Your task to perform on an android device: see sites visited before in the chrome app Image 0: 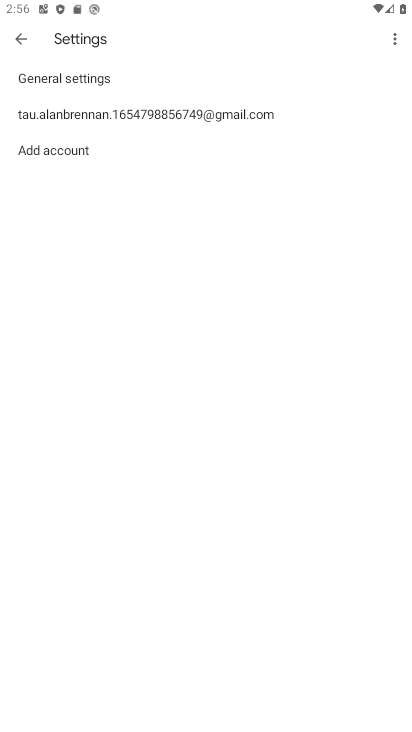
Step 0: press home button
Your task to perform on an android device: see sites visited before in the chrome app Image 1: 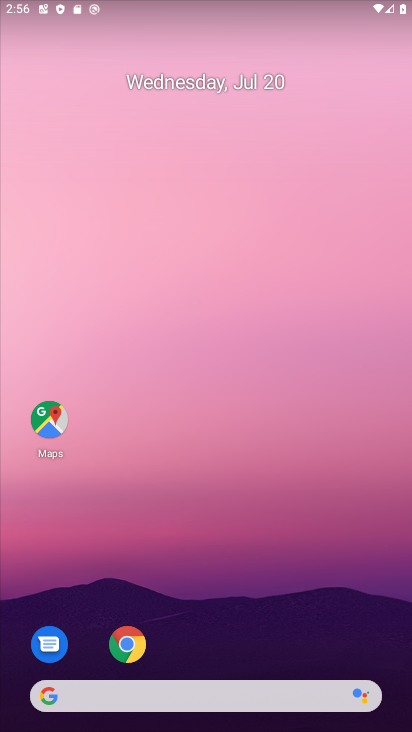
Step 1: task complete